Your task to perform on an android device: Is it going to rain this weekend? Image 0: 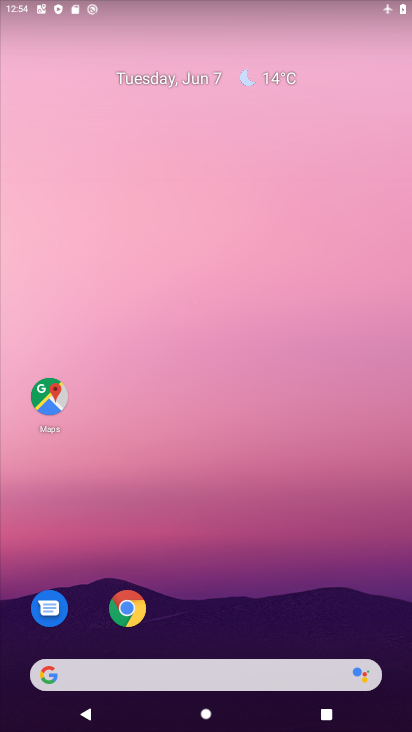
Step 0: click (284, 84)
Your task to perform on an android device: Is it going to rain this weekend? Image 1: 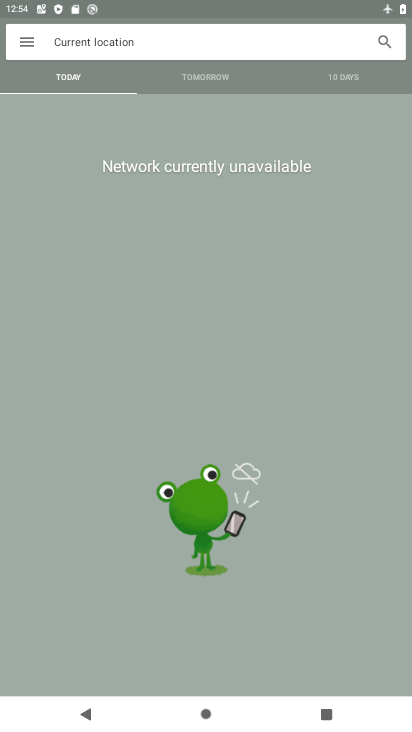
Step 1: click (209, 73)
Your task to perform on an android device: Is it going to rain this weekend? Image 2: 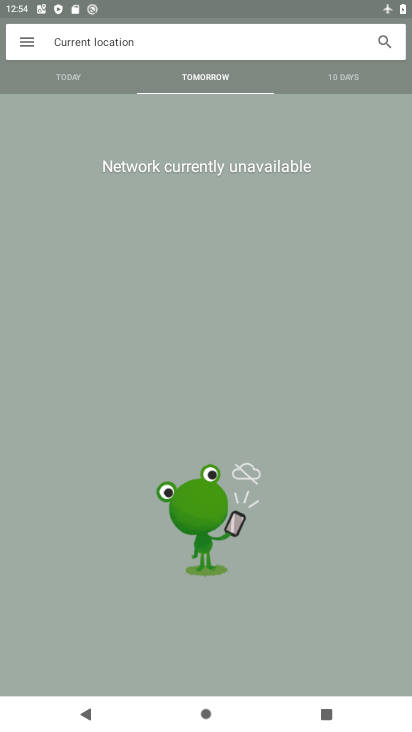
Step 2: click (327, 69)
Your task to perform on an android device: Is it going to rain this weekend? Image 3: 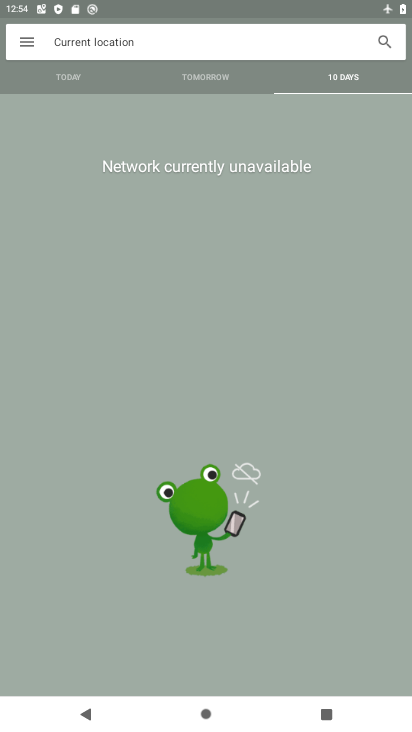
Step 3: task complete